Your task to perform on an android device: see creations saved in the google photos Image 0: 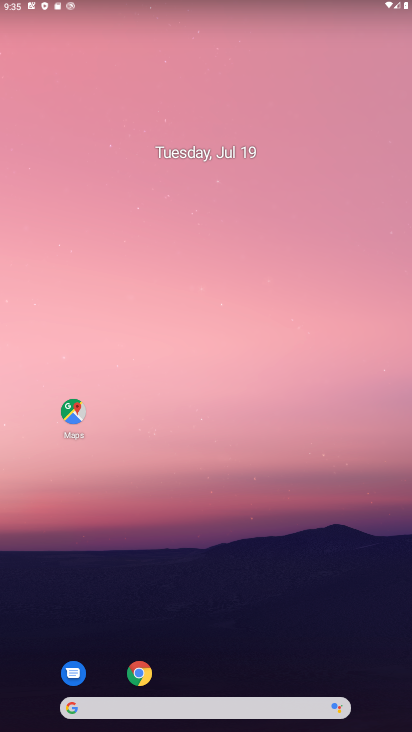
Step 0: drag from (198, 655) to (189, 244)
Your task to perform on an android device: see creations saved in the google photos Image 1: 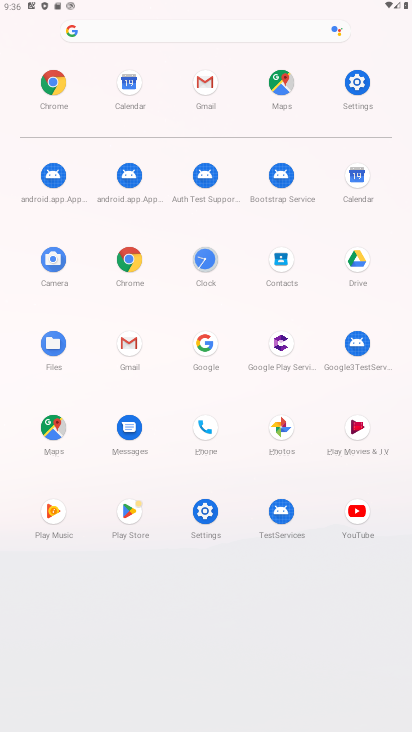
Step 1: click (276, 440)
Your task to perform on an android device: see creations saved in the google photos Image 2: 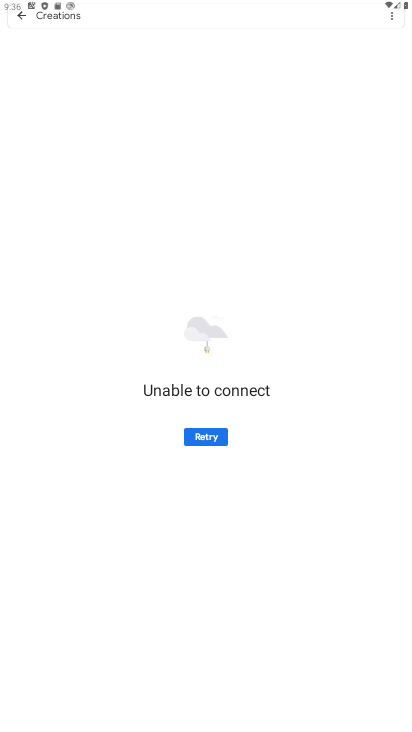
Step 2: task complete